Your task to perform on an android device: Go to ESPN.com Image 0: 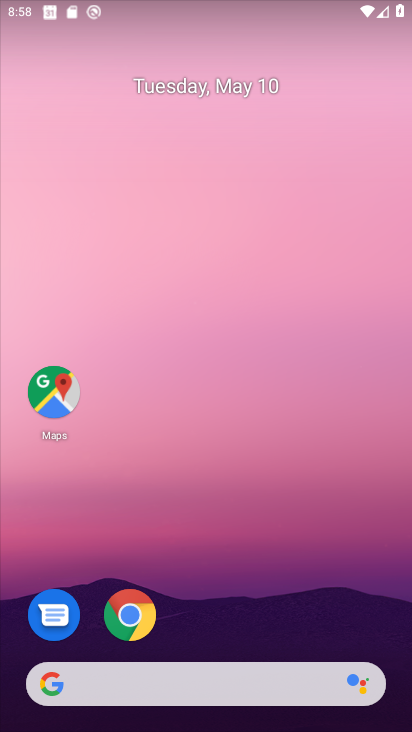
Step 0: drag from (219, 648) to (215, 174)
Your task to perform on an android device: Go to ESPN.com Image 1: 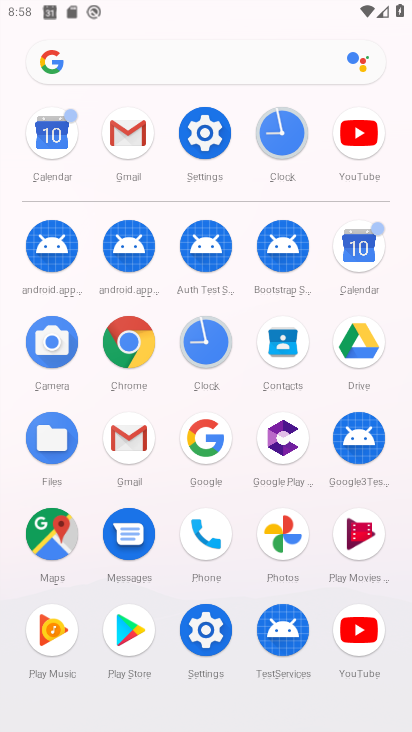
Step 1: drag from (230, 631) to (244, 209)
Your task to perform on an android device: Go to ESPN.com Image 2: 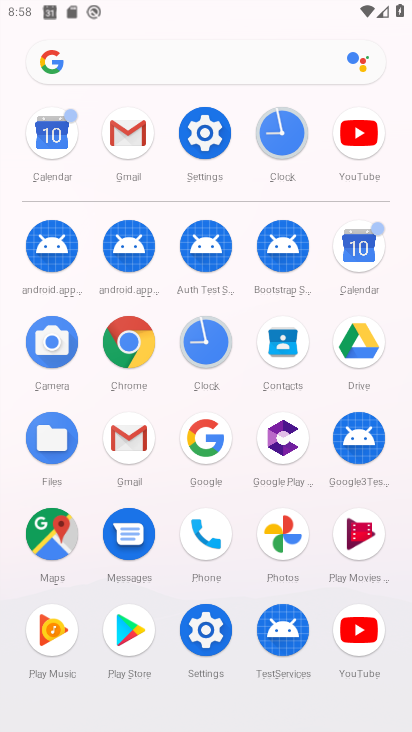
Step 2: click (177, 62)
Your task to perform on an android device: Go to ESPN.com Image 3: 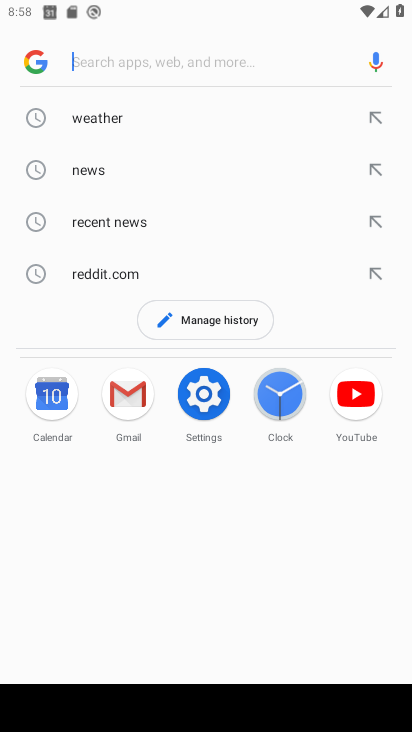
Step 3: click (101, 66)
Your task to perform on an android device: Go to ESPN.com Image 4: 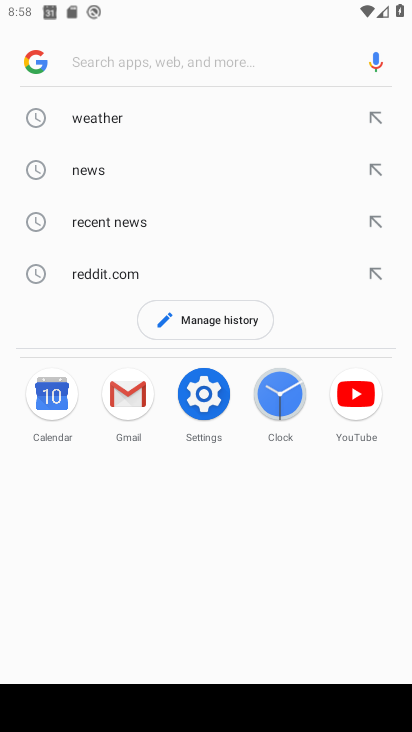
Step 4: type "espn"
Your task to perform on an android device: Go to ESPN.com Image 5: 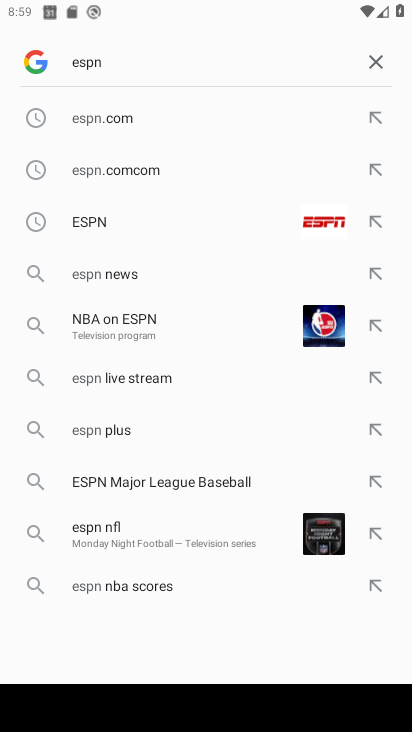
Step 5: click (218, 125)
Your task to perform on an android device: Go to ESPN.com Image 6: 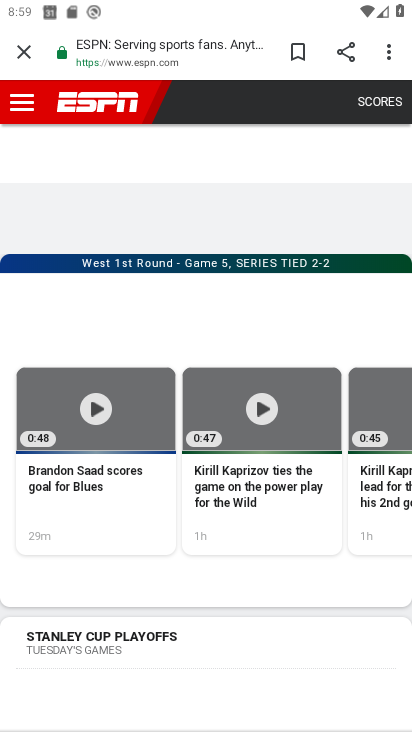
Step 6: task complete